Your task to perform on an android device: Open the web browser Image 0: 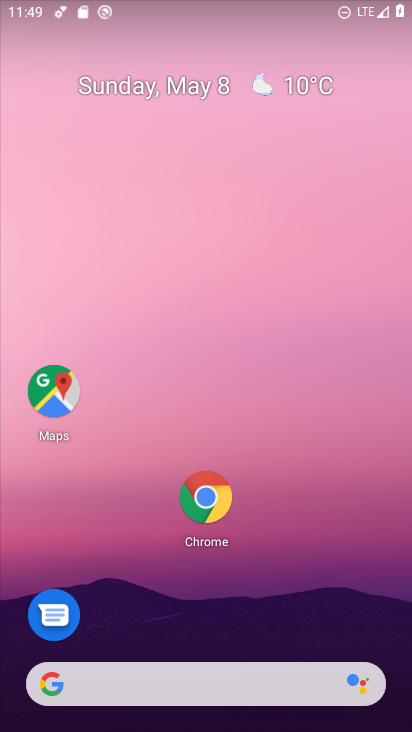
Step 0: click (206, 495)
Your task to perform on an android device: Open the web browser Image 1: 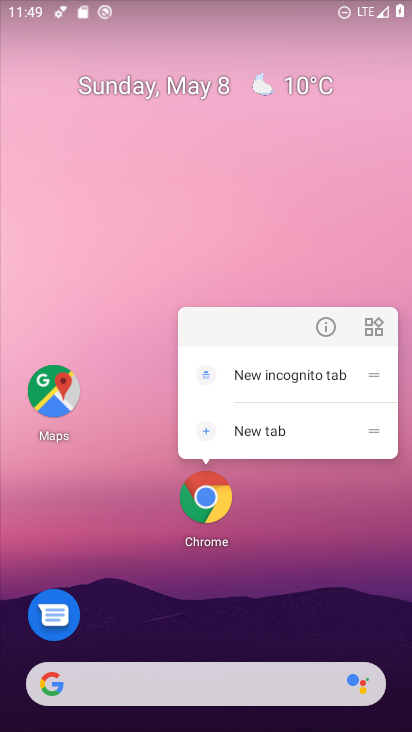
Step 1: drag from (342, 589) to (237, 19)
Your task to perform on an android device: Open the web browser Image 2: 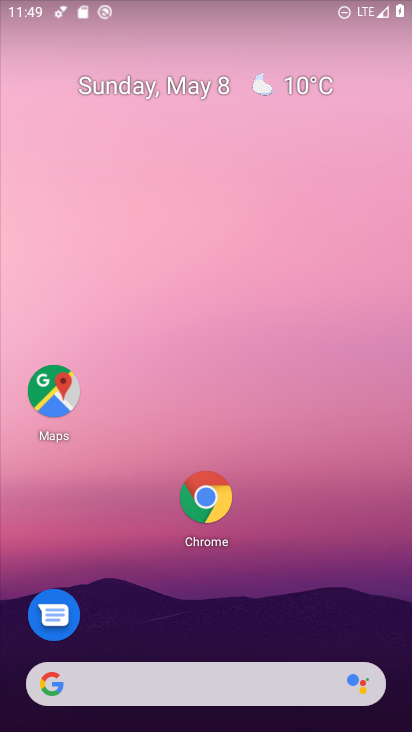
Step 2: drag from (301, 579) to (294, 182)
Your task to perform on an android device: Open the web browser Image 3: 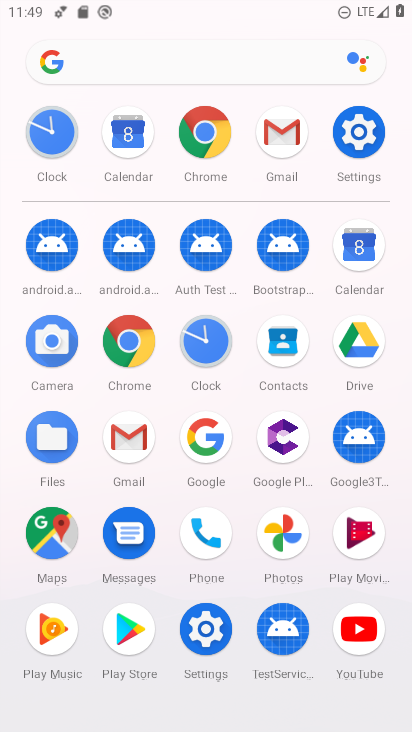
Step 3: click (131, 333)
Your task to perform on an android device: Open the web browser Image 4: 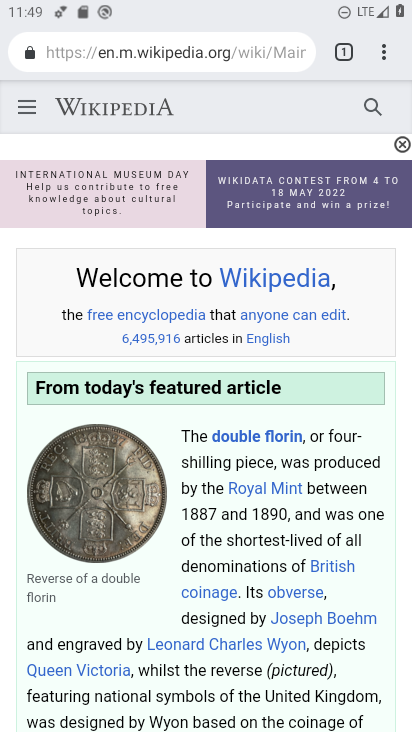
Step 4: task complete